Your task to perform on an android device: turn on javascript in the chrome app Image 0: 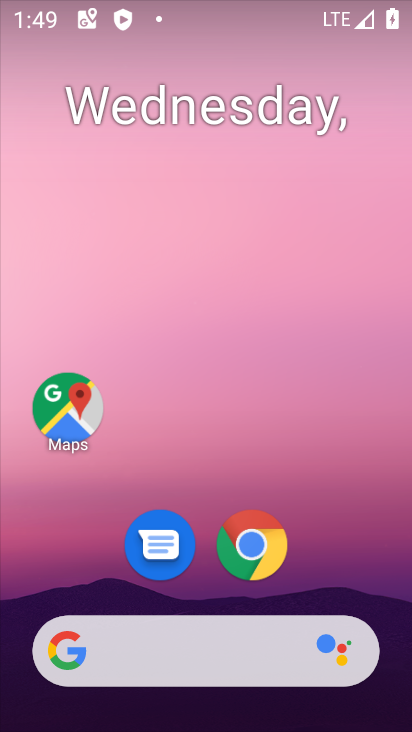
Step 0: click (252, 550)
Your task to perform on an android device: turn on javascript in the chrome app Image 1: 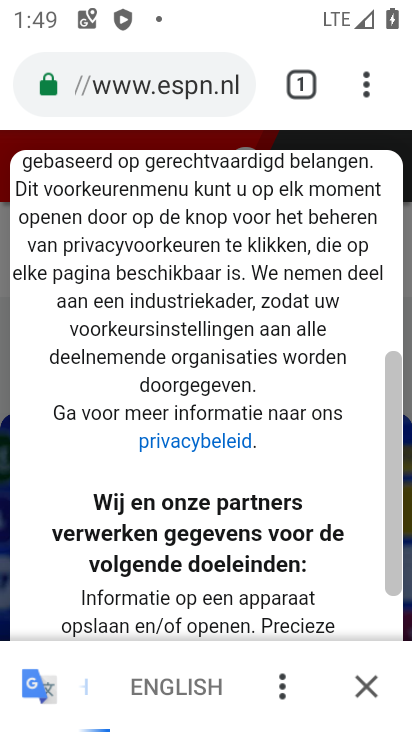
Step 1: click (377, 73)
Your task to perform on an android device: turn on javascript in the chrome app Image 2: 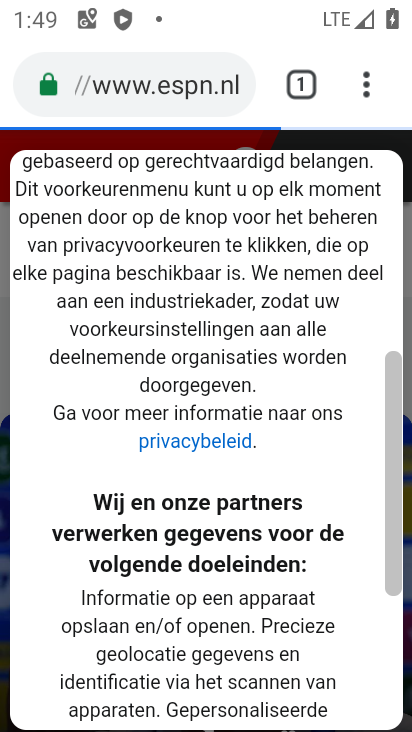
Step 2: drag from (371, 89) to (142, 608)
Your task to perform on an android device: turn on javascript in the chrome app Image 3: 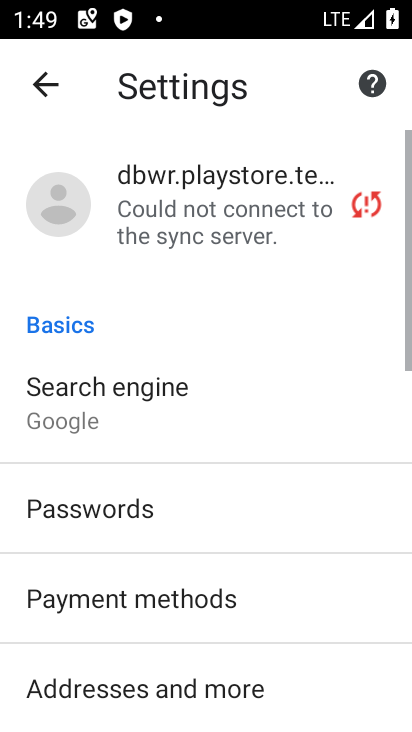
Step 3: drag from (218, 645) to (261, 190)
Your task to perform on an android device: turn on javascript in the chrome app Image 4: 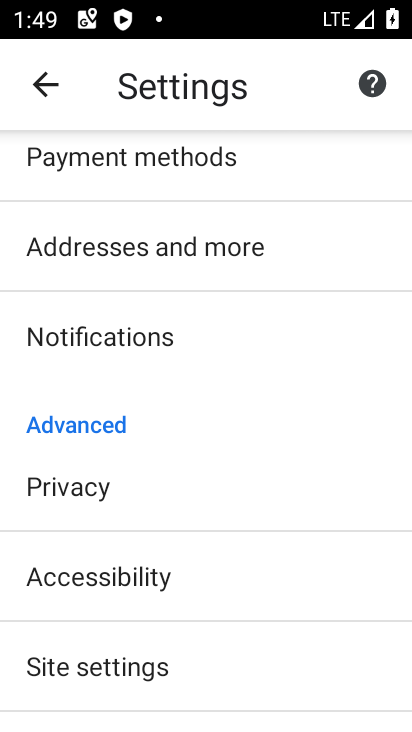
Step 4: click (127, 655)
Your task to perform on an android device: turn on javascript in the chrome app Image 5: 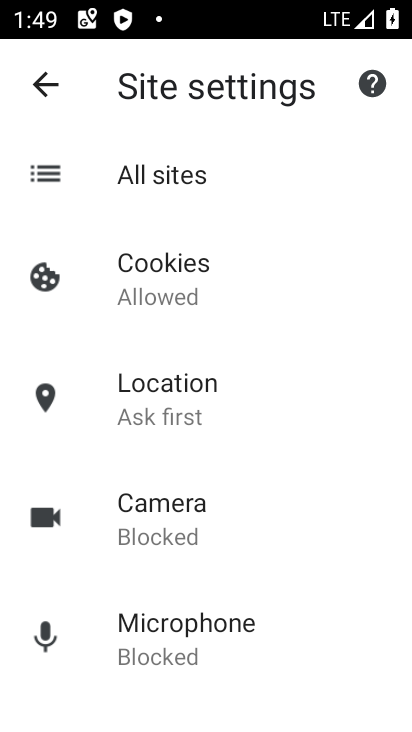
Step 5: drag from (228, 474) to (244, 105)
Your task to perform on an android device: turn on javascript in the chrome app Image 6: 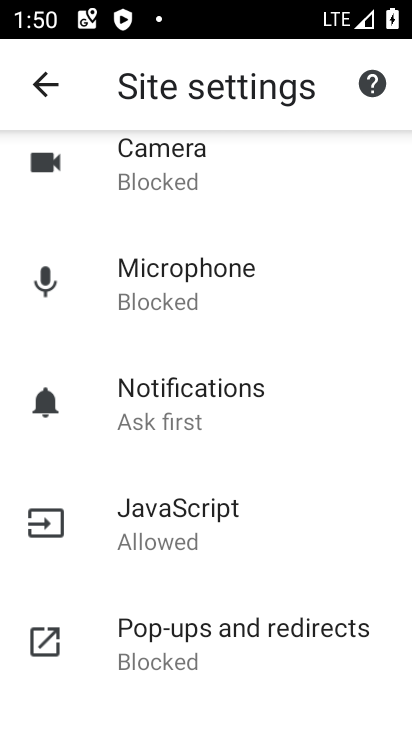
Step 6: click (169, 515)
Your task to perform on an android device: turn on javascript in the chrome app Image 7: 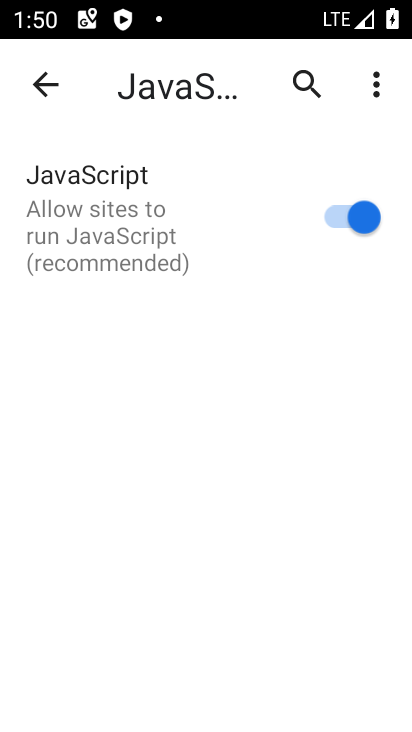
Step 7: task complete